Your task to perform on an android device: open sync settings in chrome Image 0: 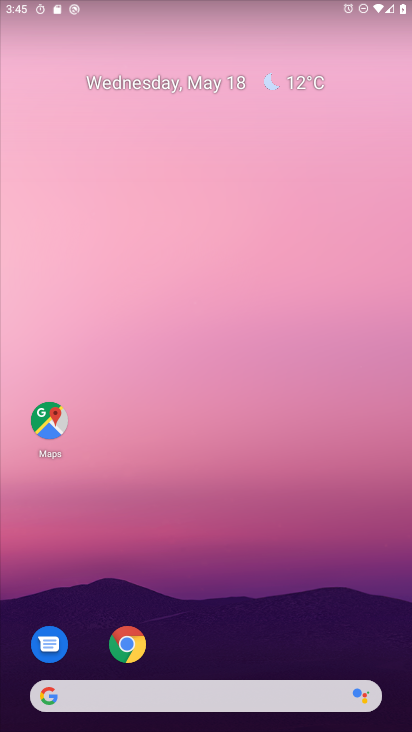
Step 0: click (123, 650)
Your task to perform on an android device: open sync settings in chrome Image 1: 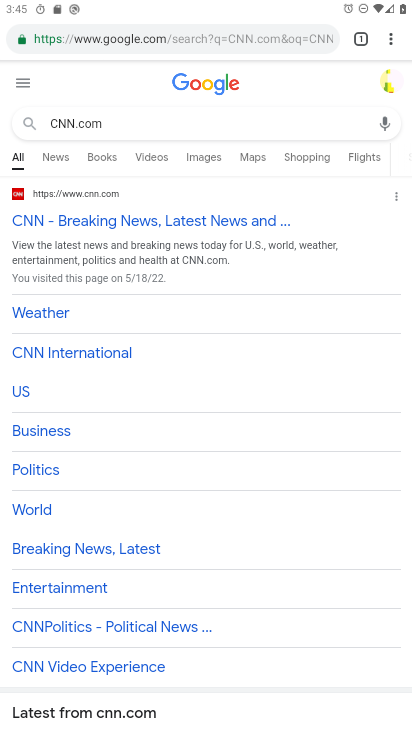
Step 1: click (392, 36)
Your task to perform on an android device: open sync settings in chrome Image 2: 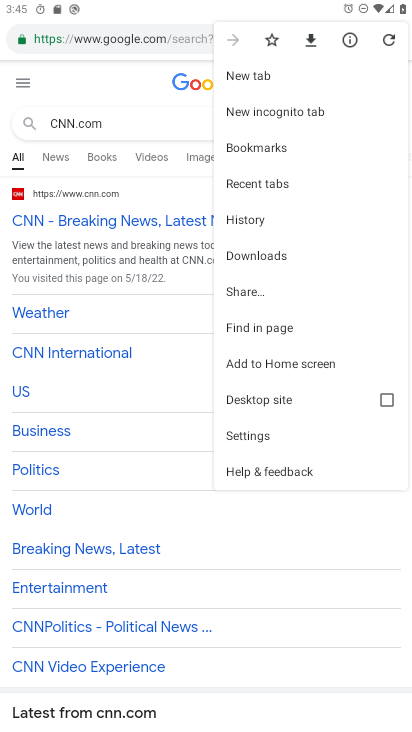
Step 2: click (243, 434)
Your task to perform on an android device: open sync settings in chrome Image 3: 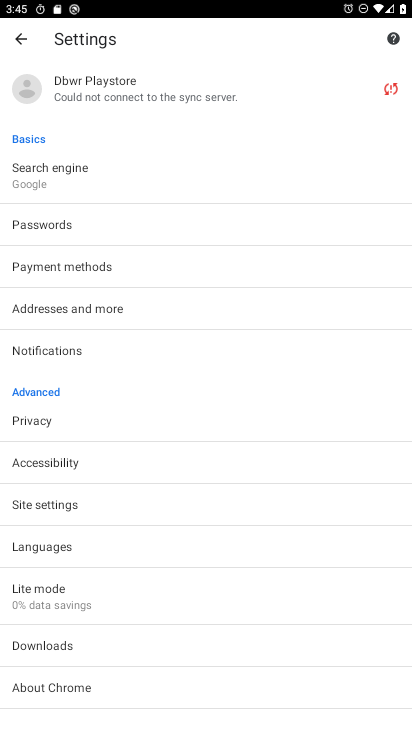
Step 3: click (43, 494)
Your task to perform on an android device: open sync settings in chrome Image 4: 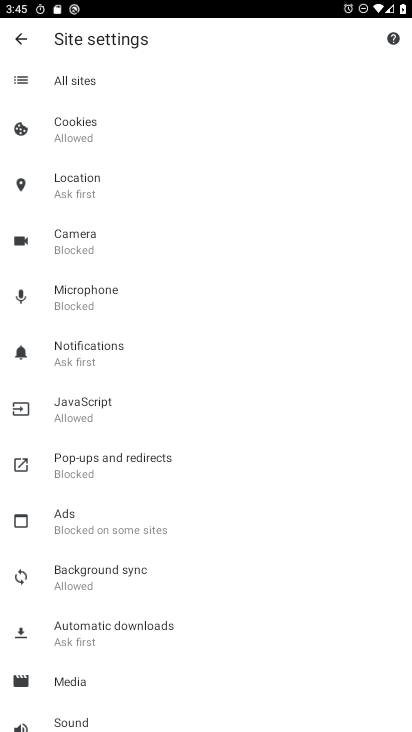
Step 4: click (79, 570)
Your task to perform on an android device: open sync settings in chrome Image 5: 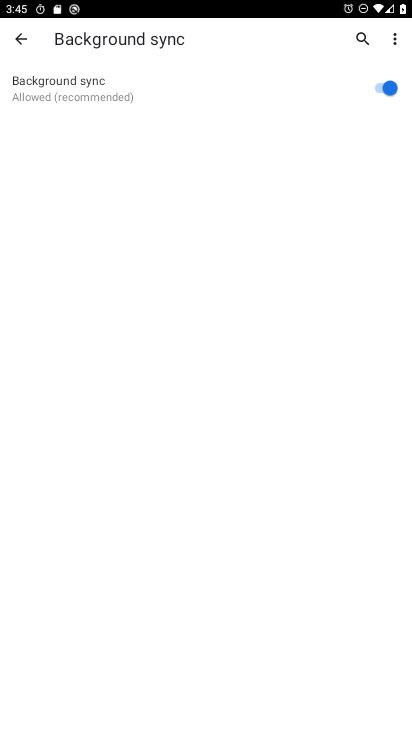
Step 5: task complete